Your task to perform on an android device: turn pop-ups on in chrome Image 0: 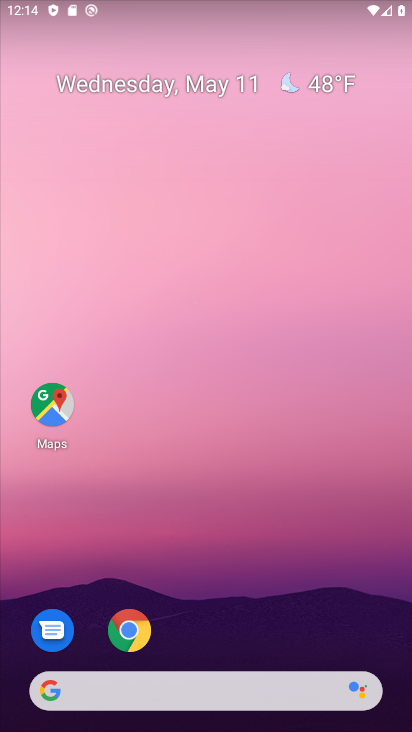
Step 0: drag from (202, 664) to (178, 21)
Your task to perform on an android device: turn pop-ups on in chrome Image 1: 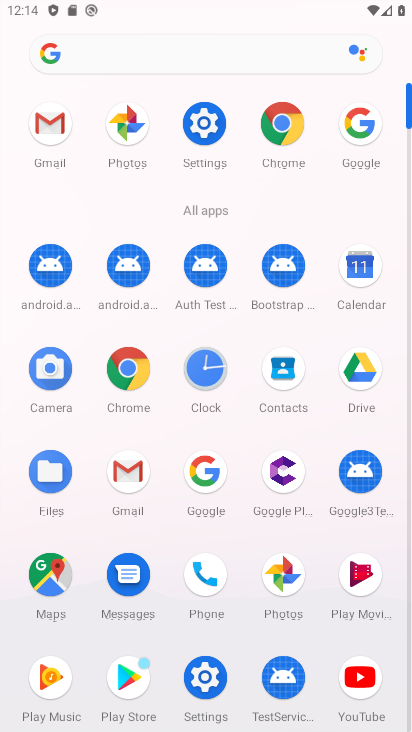
Step 1: click (128, 371)
Your task to perform on an android device: turn pop-ups on in chrome Image 2: 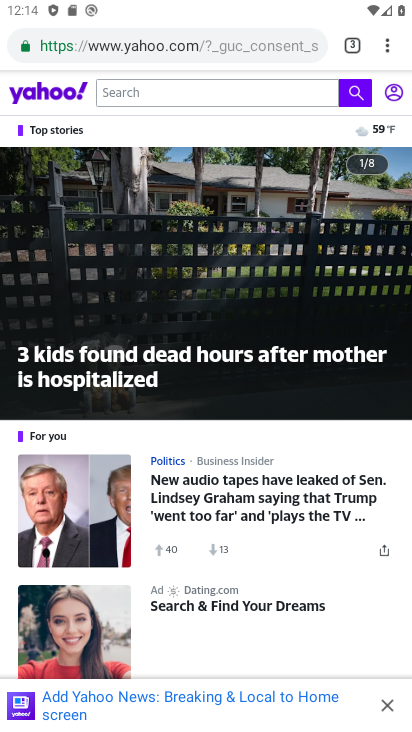
Step 2: click (376, 41)
Your task to perform on an android device: turn pop-ups on in chrome Image 3: 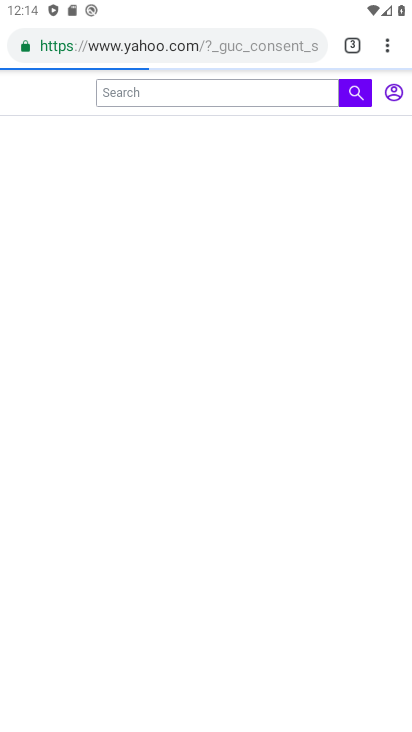
Step 3: drag from (386, 50) to (224, 547)
Your task to perform on an android device: turn pop-ups on in chrome Image 4: 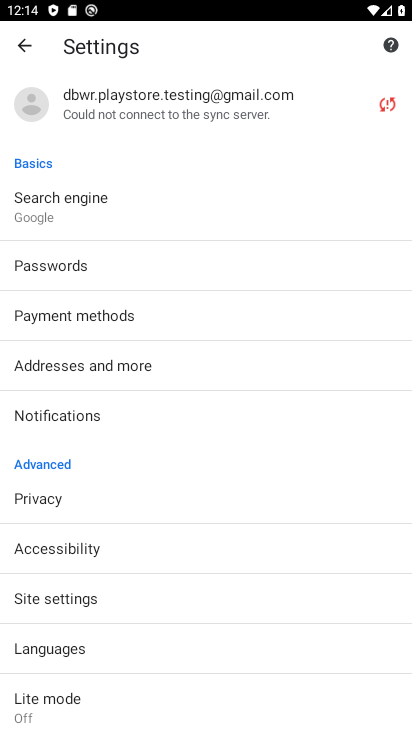
Step 4: click (47, 594)
Your task to perform on an android device: turn pop-ups on in chrome Image 5: 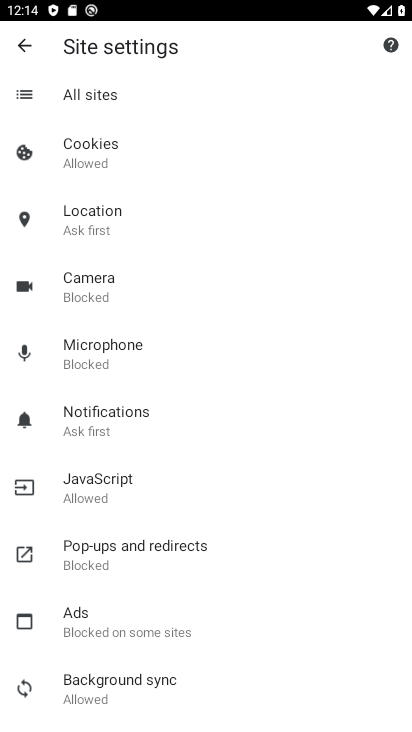
Step 5: click (103, 542)
Your task to perform on an android device: turn pop-ups on in chrome Image 6: 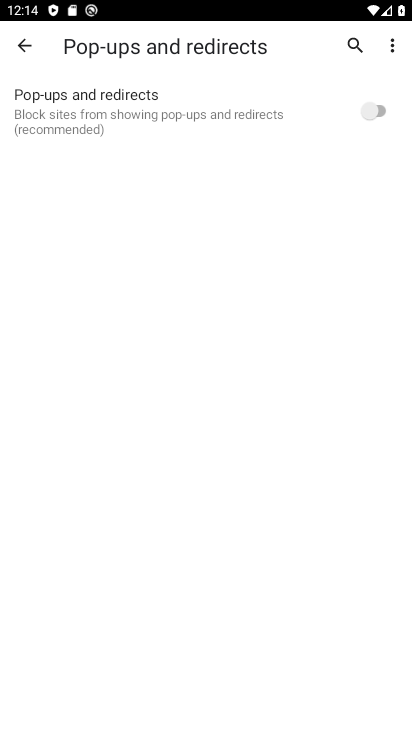
Step 6: click (362, 106)
Your task to perform on an android device: turn pop-ups on in chrome Image 7: 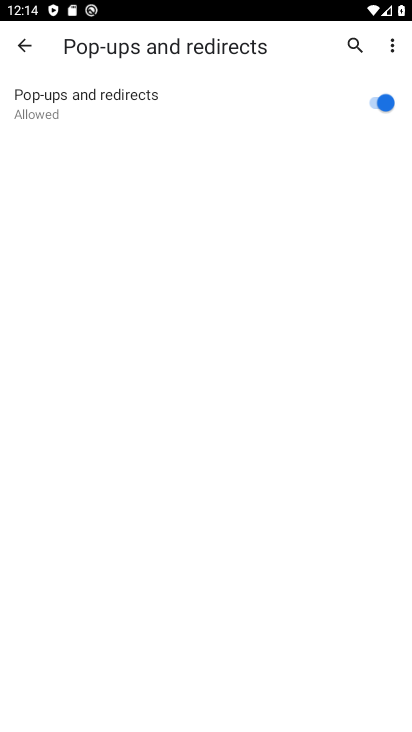
Step 7: task complete